Your task to perform on an android device: Go to internet settings Image 0: 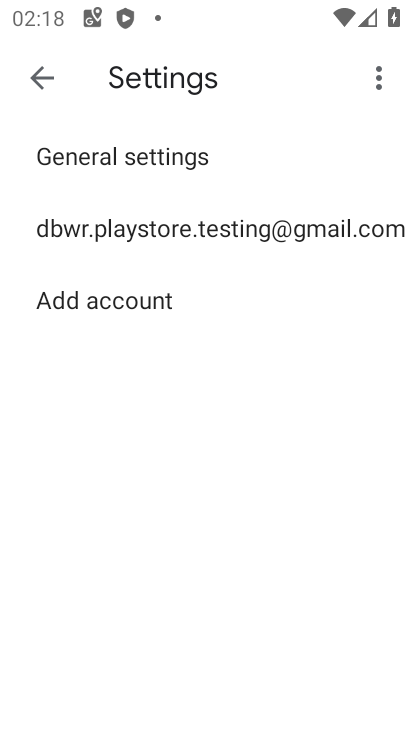
Step 0: press home button
Your task to perform on an android device: Go to internet settings Image 1: 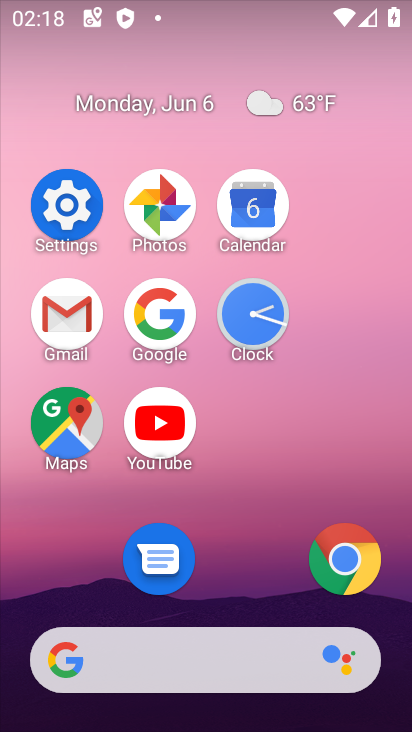
Step 1: click (42, 199)
Your task to perform on an android device: Go to internet settings Image 2: 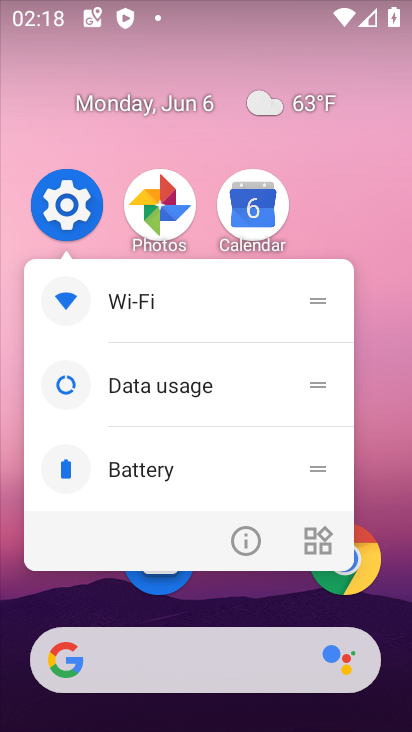
Step 2: click (56, 197)
Your task to perform on an android device: Go to internet settings Image 3: 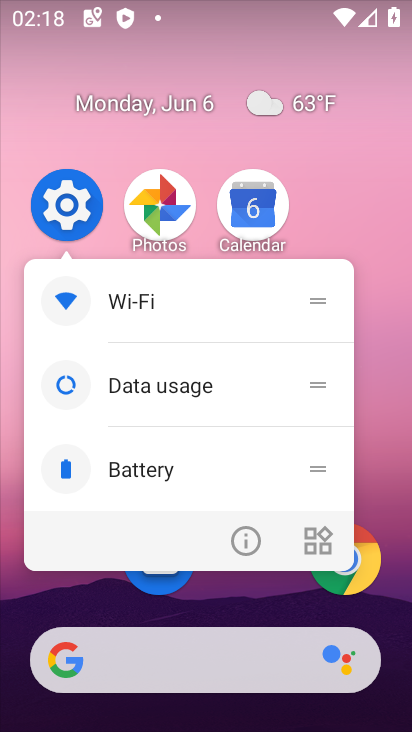
Step 3: click (56, 197)
Your task to perform on an android device: Go to internet settings Image 4: 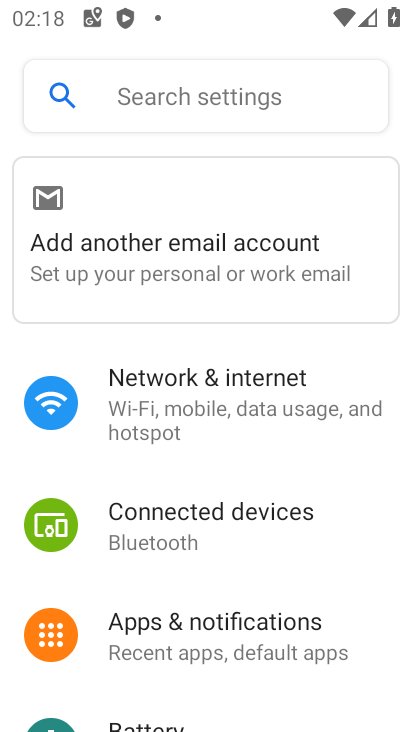
Step 4: click (170, 399)
Your task to perform on an android device: Go to internet settings Image 5: 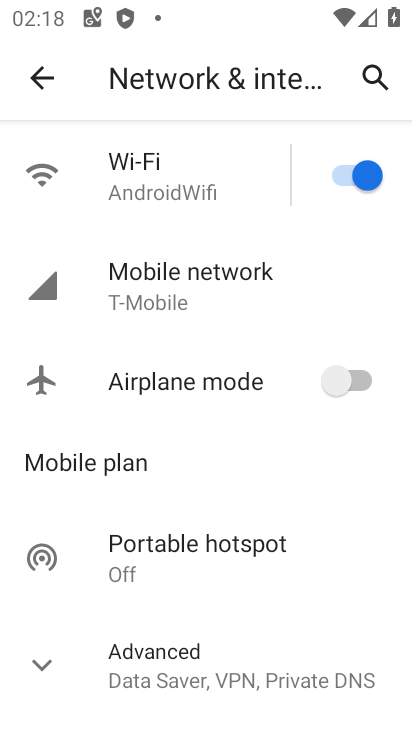
Step 5: task complete